Your task to perform on an android device: Open Youtube and go to the subscriptions tab Image 0: 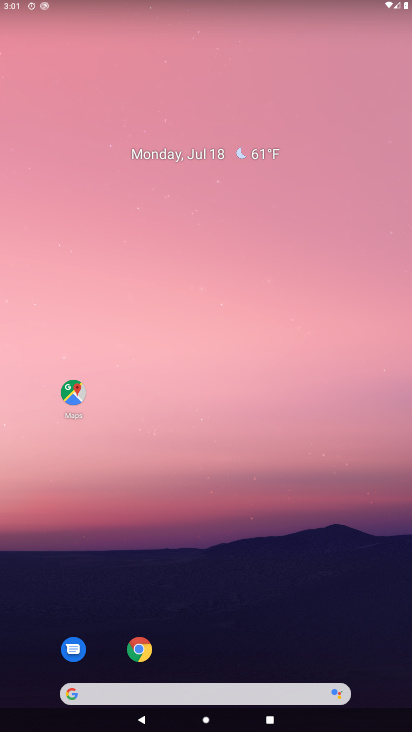
Step 0: drag from (73, 545) to (254, 146)
Your task to perform on an android device: Open Youtube and go to the subscriptions tab Image 1: 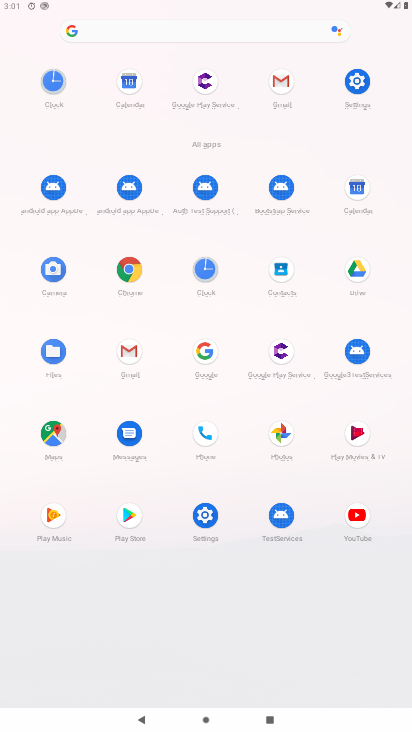
Step 1: click (366, 515)
Your task to perform on an android device: Open Youtube and go to the subscriptions tab Image 2: 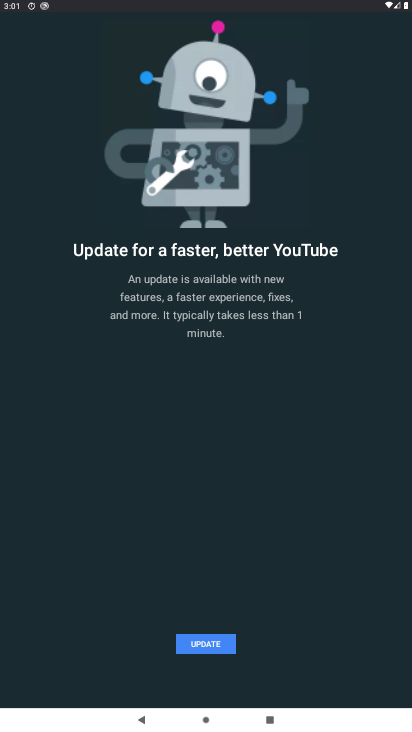
Step 2: click (197, 637)
Your task to perform on an android device: Open Youtube and go to the subscriptions tab Image 3: 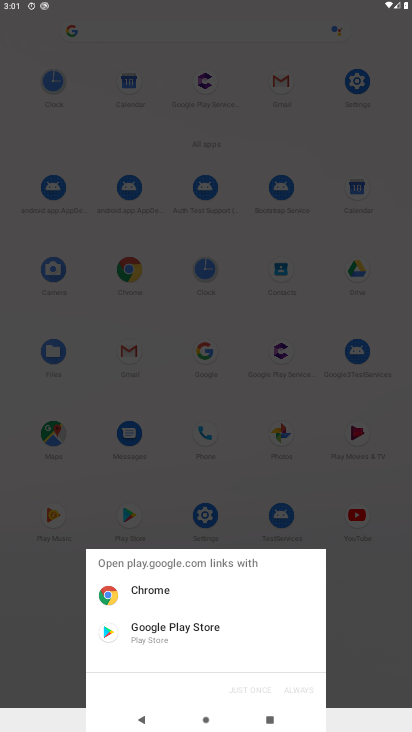
Step 3: click (197, 641)
Your task to perform on an android device: Open Youtube and go to the subscriptions tab Image 4: 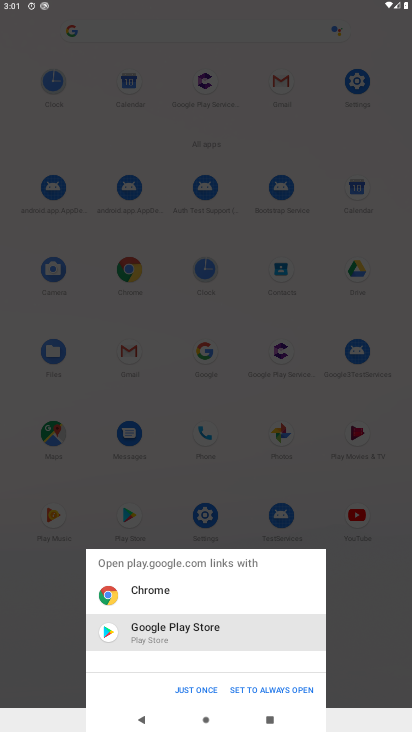
Step 4: click (206, 689)
Your task to perform on an android device: Open Youtube and go to the subscriptions tab Image 5: 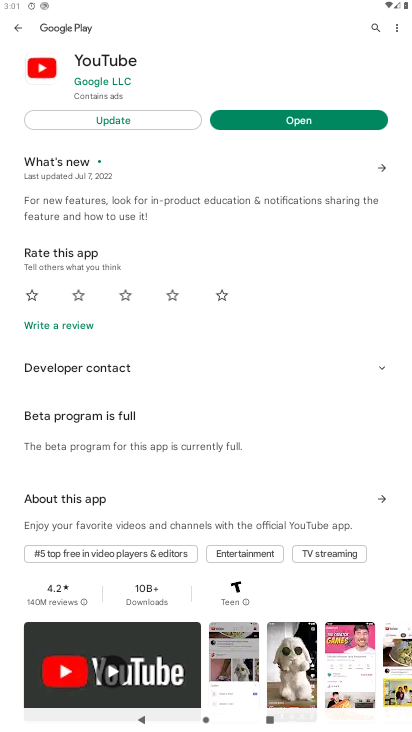
Step 5: click (332, 118)
Your task to perform on an android device: Open Youtube and go to the subscriptions tab Image 6: 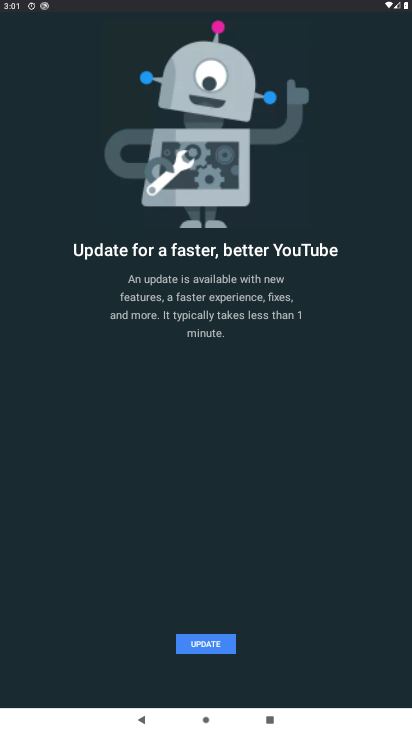
Step 6: task complete